Your task to perform on an android device: star an email in the gmail app Image 0: 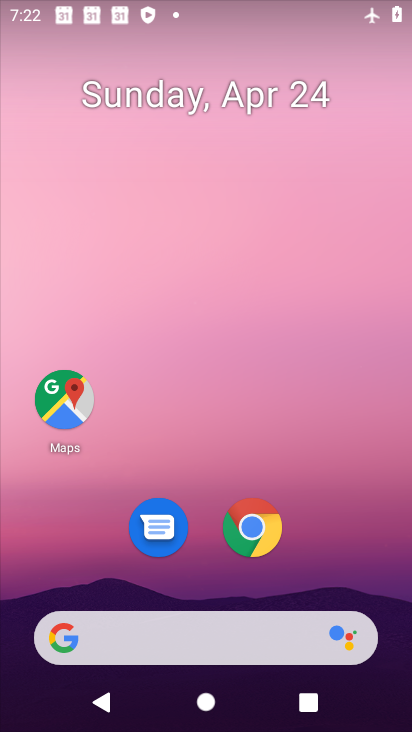
Step 0: drag from (397, 595) to (278, 71)
Your task to perform on an android device: star an email in the gmail app Image 1: 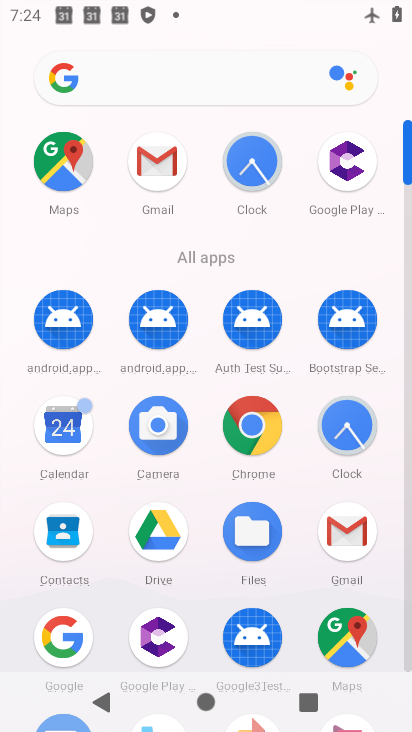
Step 1: click (341, 541)
Your task to perform on an android device: star an email in the gmail app Image 2: 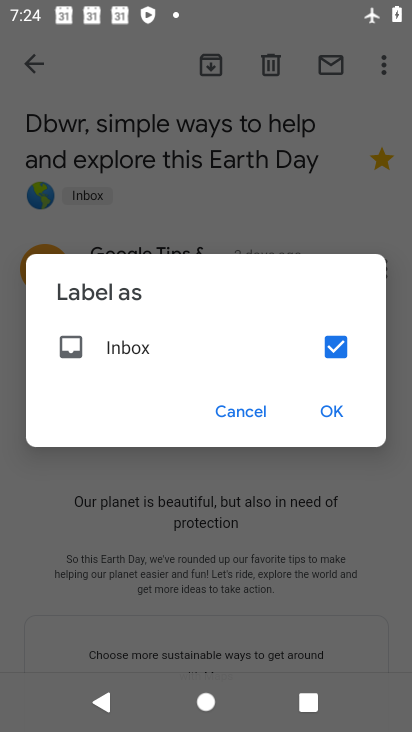
Step 2: press back button
Your task to perform on an android device: star an email in the gmail app Image 3: 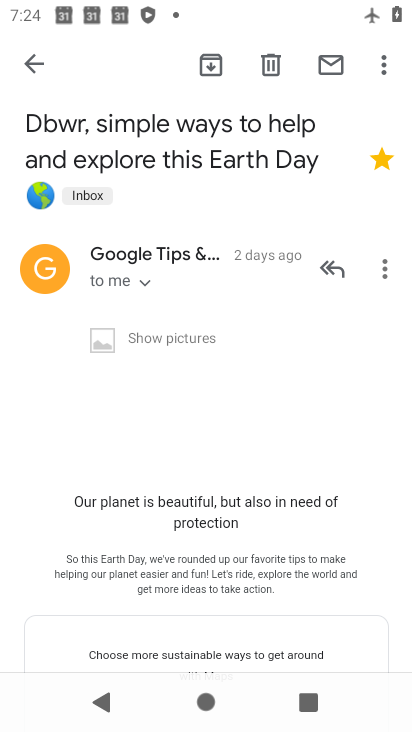
Step 3: click (391, 159)
Your task to perform on an android device: star an email in the gmail app Image 4: 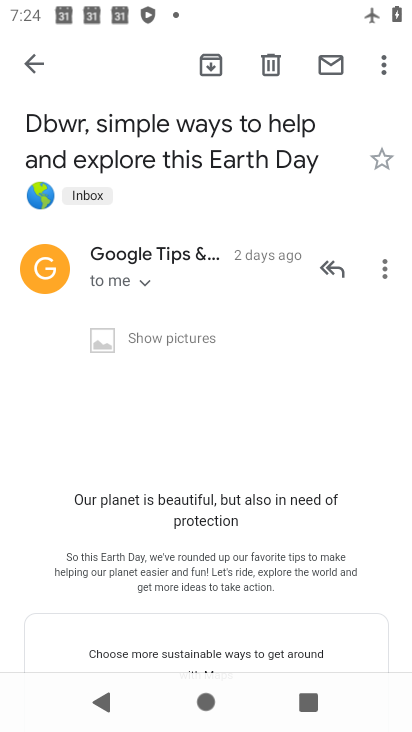
Step 4: click (392, 158)
Your task to perform on an android device: star an email in the gmail app Image 5: 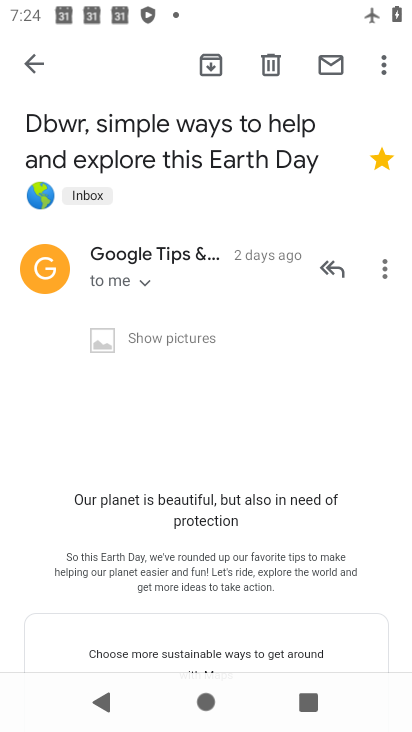
Step 5: task complete